Your task to perform on an android device: add a label to a message in the gmail app Image 0: 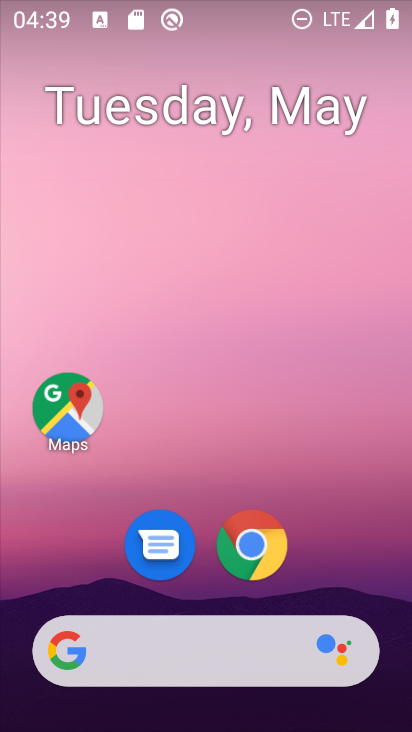
Step 0: drag from (387, 622) to (331, 94)
Your task to perform on an android device: add a label to a message in the gmail app Image 1: 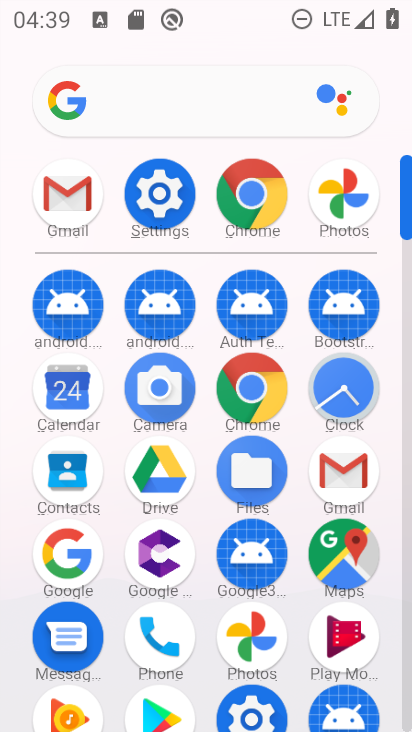
Step 1: click (405, 701)
Your task to perform on an android device: add a label to a message in the gmail app Image 2: 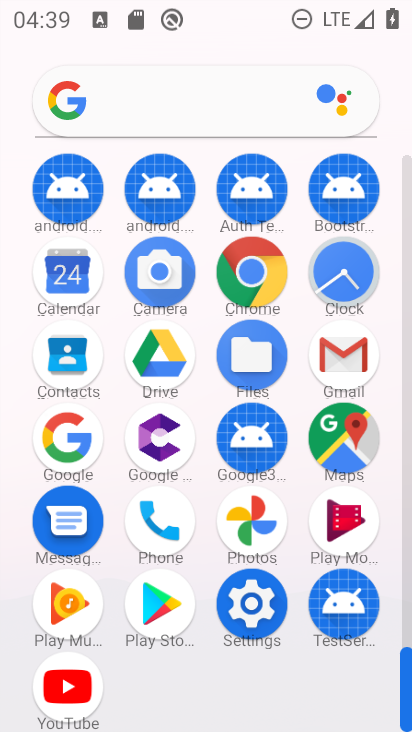
Step 2: click (345, 354)
Your task to perform on an android device: add a label to a message in the gmail app Image 3: 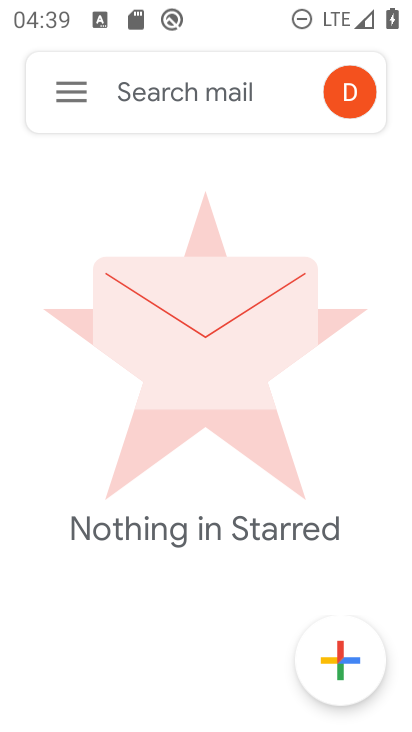
Step 3: click (72, 94)
Your task to perform on an android device: add a label to a message in the gmail app Image 4: 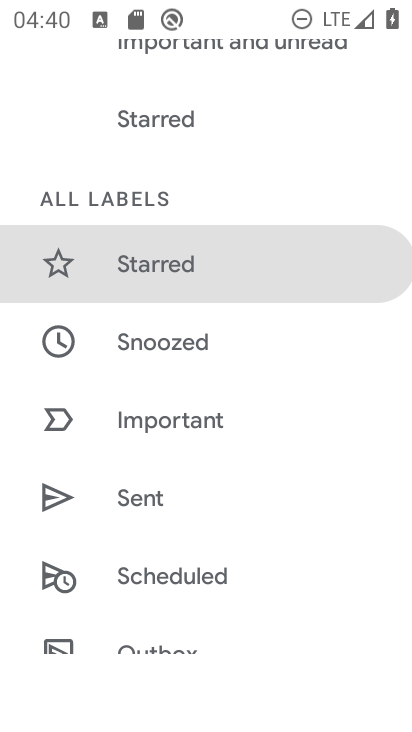
Step 4: drag from (241, 606) to (256, 273)
Your task to perform on an android device: add a label to a message in the gmail app Image 5: 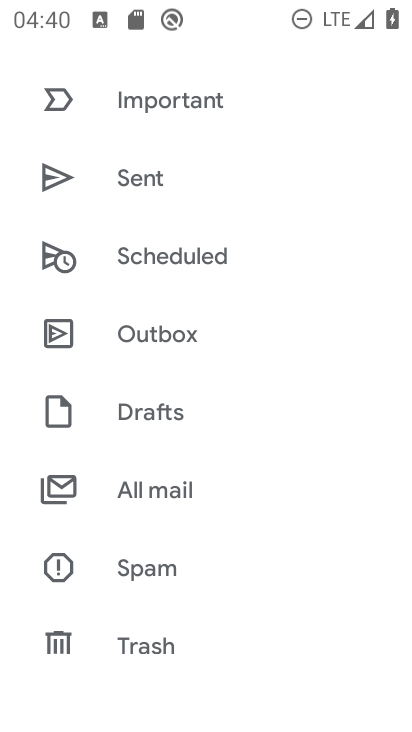
Step 5: click (142, 495)
Your task to perform on an android device: add a label to a message in the gmail app Image 6: 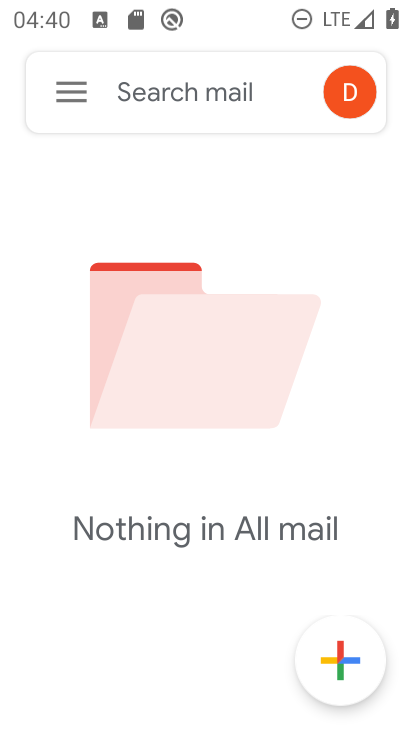
Step 6: task complete